Your task to perform on an android device: Go to Android settings Image 0: 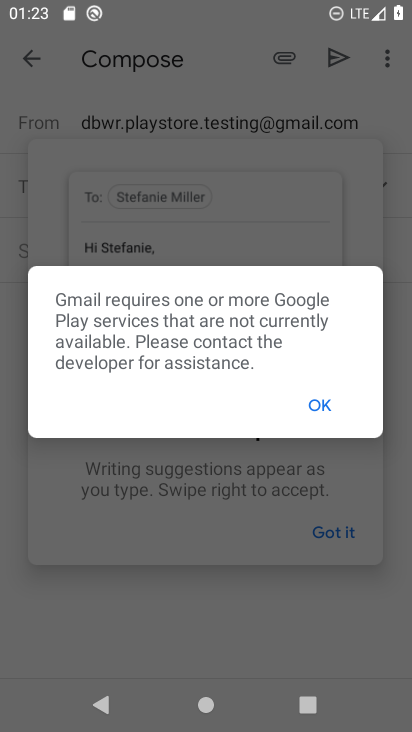
Step 0: press home button
Your task to perform on an android device: Go to Android settings Image 1: 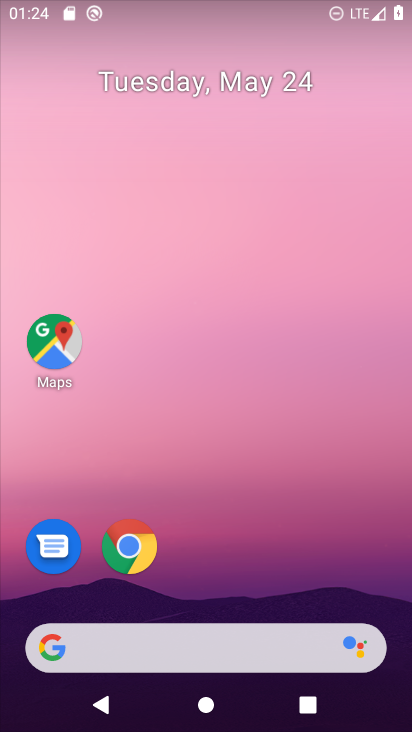
Step 1: drag from (263, 623) to (268, 93)
Your task to perform on an android device: Go to Android settings Image 2: 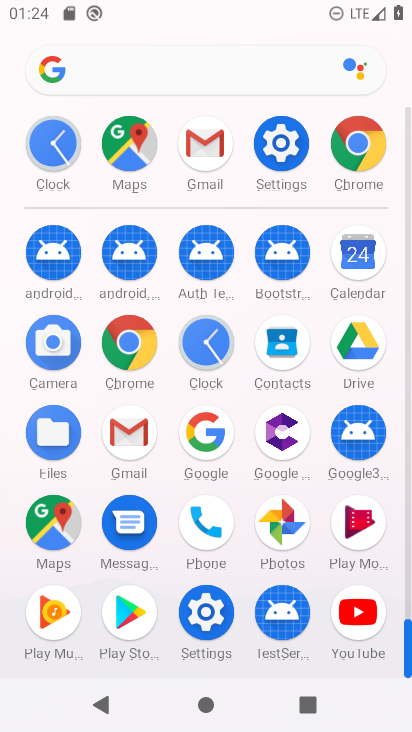
Step 2: click (275, 147)
Your task to perform on an android device: Go to Android settings Image 3: 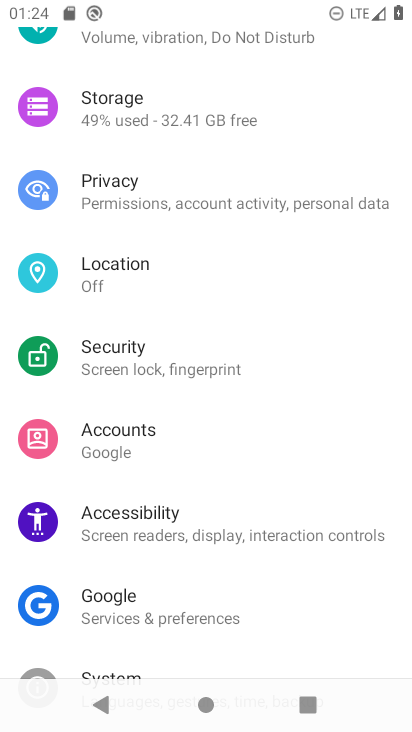
Step 3: drag from (246, 207) to (277, 42)
Your task to perform on an android device: Go to Android settings Image 4: 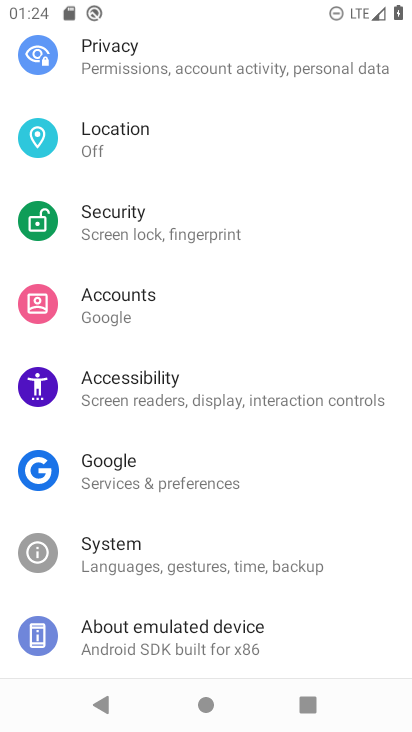
Step 4: drag from (272, 592) to (347, 129)
Your task to perform on an android device: Go to Android settings Image 5: 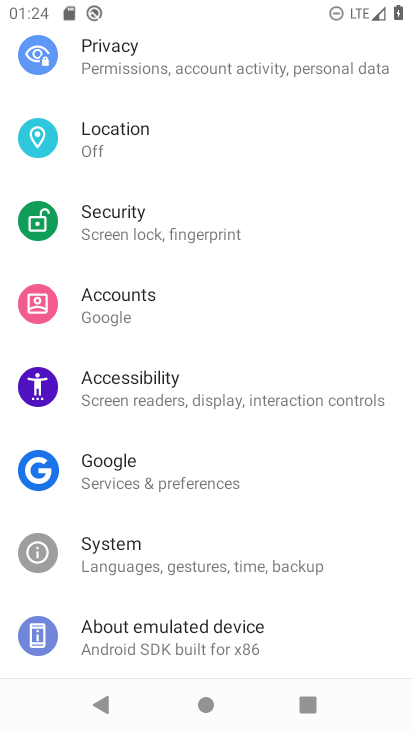
Step 5: click (207, 631)
Your task to perform on an android device: Go to Android settings Image 6: 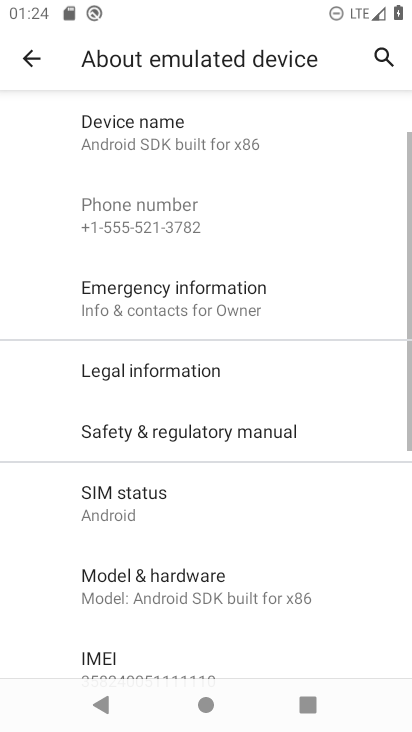
Step 6: drag from (239, 580) to (275, 145)
Your task to perform on an android device: Go to Android settings Image 7: 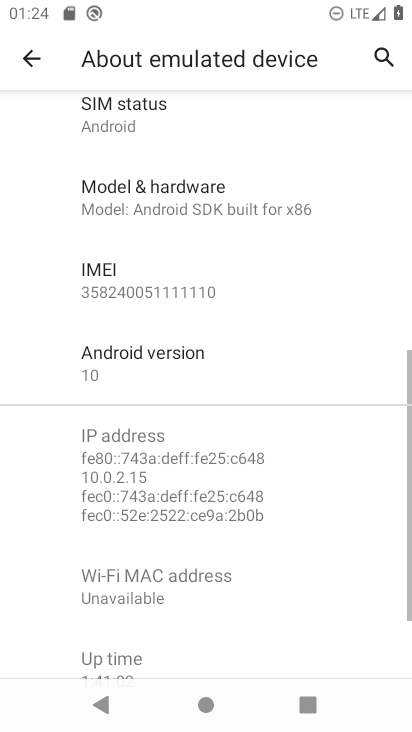
Step 7: drag from (163, 648) to (175, 294)
Your task to perform on an android device: Go to Android settings Image 8: 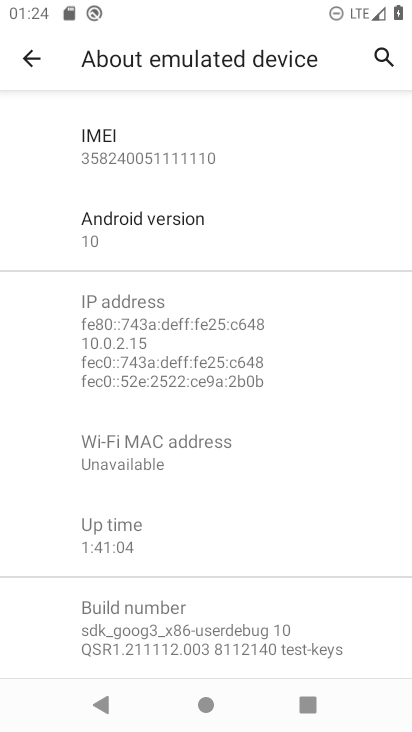
Step 8: drag from (240, 235) to (348, 557)
Your task to perform on an android device: Go to Android settings Image 9: 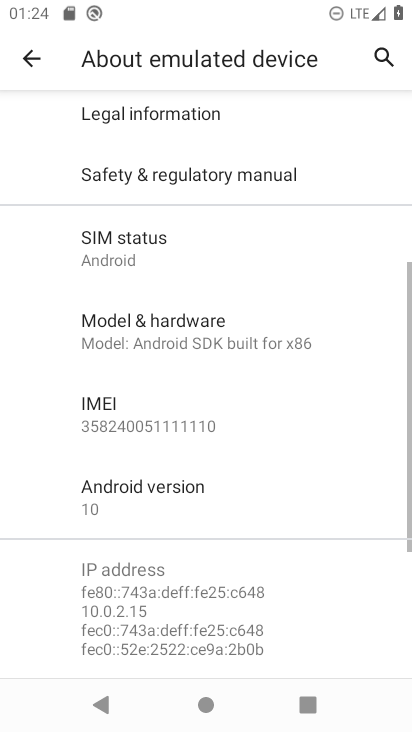
Step 9: click (176, 521)
Your task to perform on an android device: Go to Android settings Image 10: 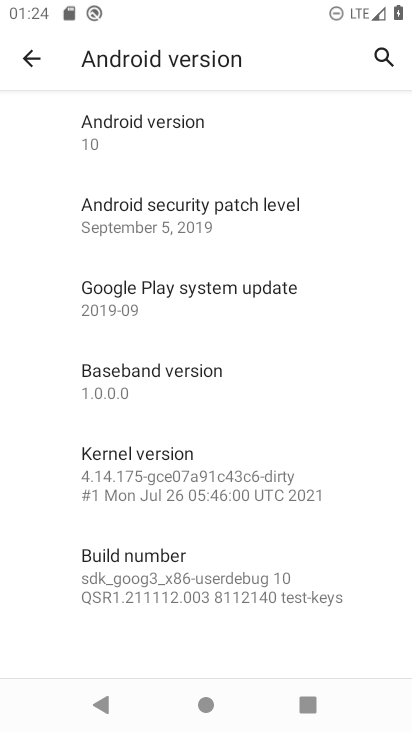
Step 10: task complete